Your task to perform on an android device: Search for pizza restaurants on Maps Image 0: 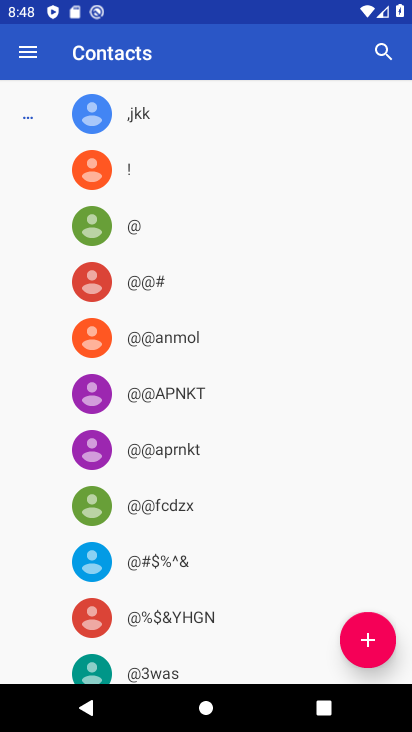
Step 0: press home button
Your task to perform on an android device: Search for pizza restaurants on Maps Image 1: 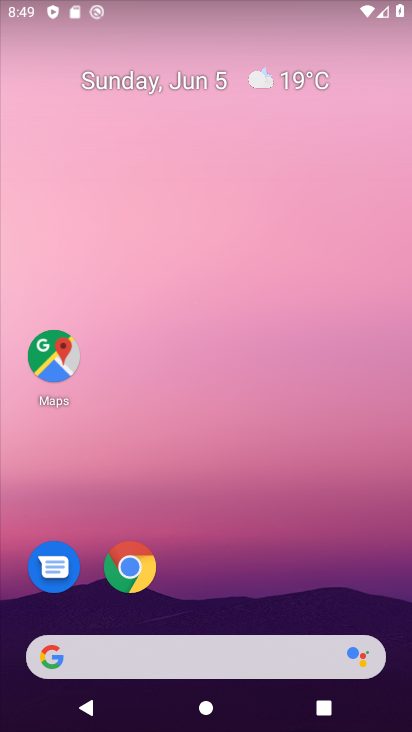
Step 1: click (42, 358)
Your task to perform on an android device: Search for pizza restaurants on Maps Image 2: 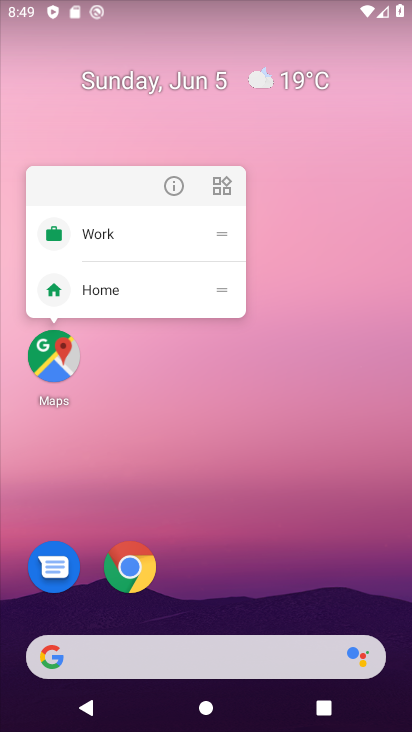
Step 2: click (45, 357)
Your task to perform on an android device: Search for pizza restaurants on Maps Image 3: 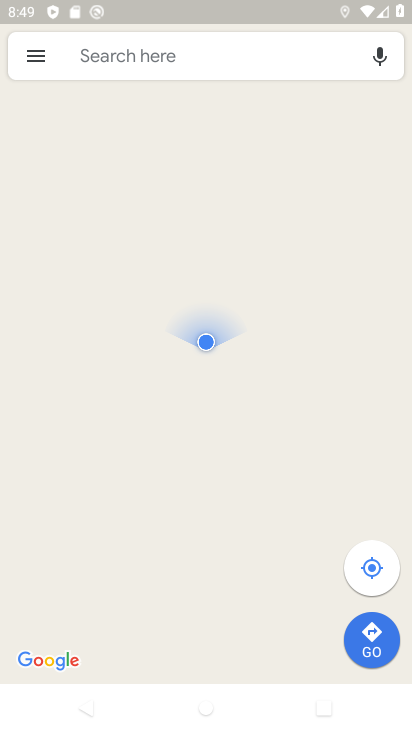
Step 3: click (178, 55)
Your task to perform on an android device: Search for pizza restaurants on Maps Image 4: 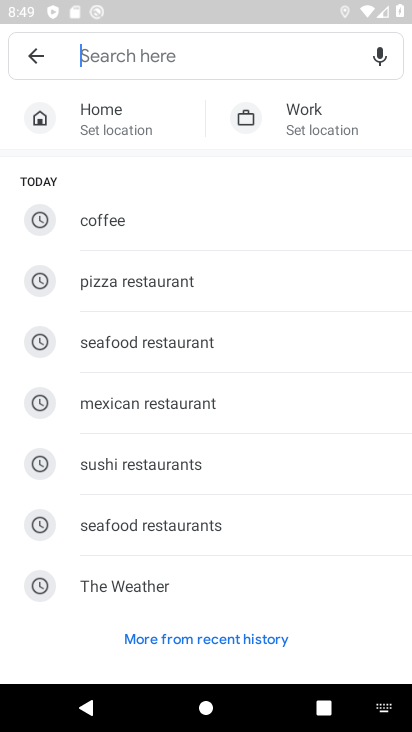
Step 4: type "Pizza restaurants"
Your task to perform on an android device: Search for pizza restaurants on Maps Image 5: 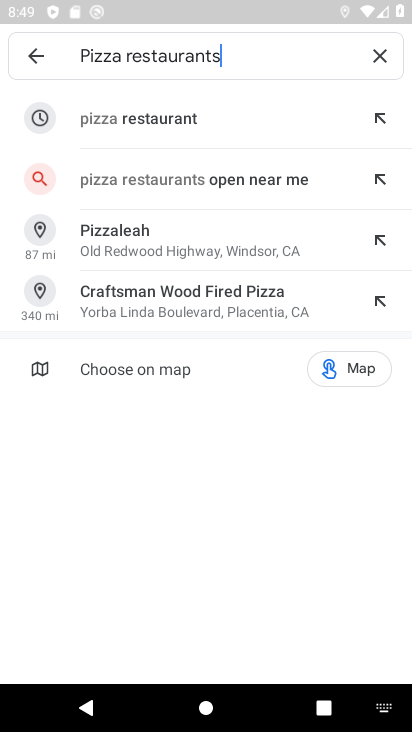
Step 5: click (210, 128)
Your task to perform on an android device: Search for pizza restaurants on Maps Image 6: 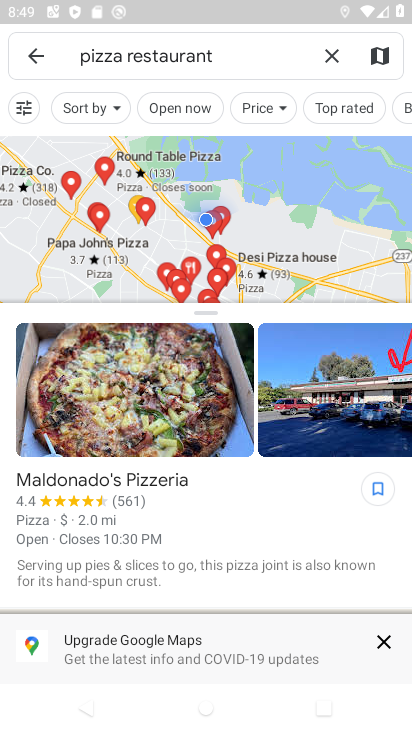
Step 6: click (386, 642)
Your task to perform on an android device: Search for pizza restaurants on Maps Image 7: 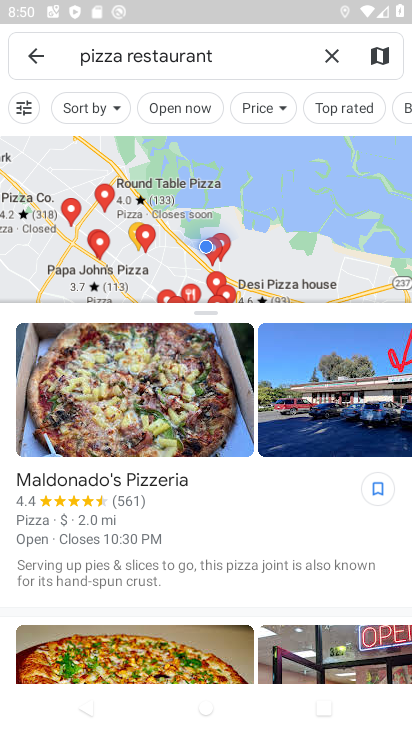
Step 7: task complete